Your task to perform on an android device: toggle pop-ups in chrome Image 0: 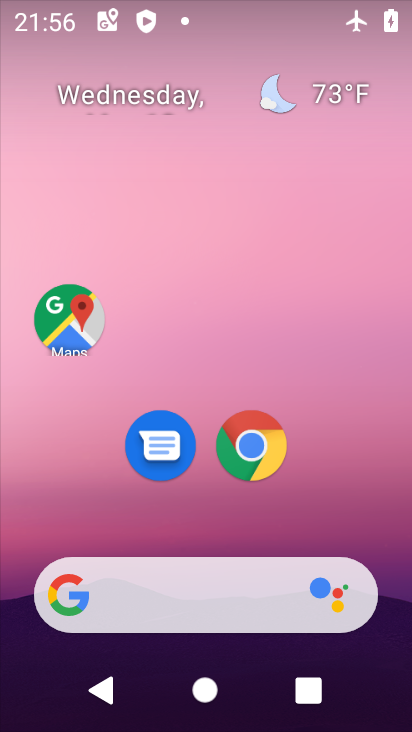
Step 0: drag from (342, 481) to (318, 137)
Your task to perform on an android device: toggle pop-ups in chrome Image 1: 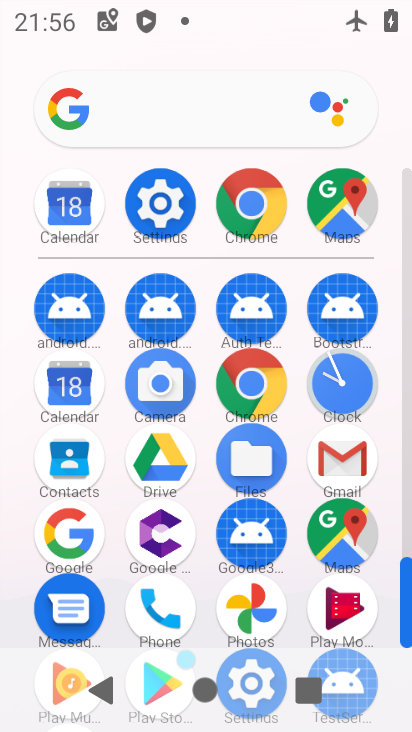
Step 1: click (253, 188)
Your task to perform on an android device: toggle pop-ups in chrome Image 2: 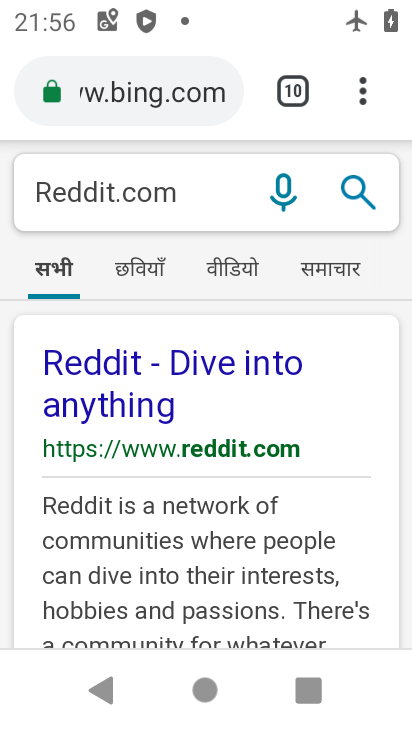
Step 2: click (368, 92)
Your task to perform on an android device: toggle pop-ups in chrome Image 3: 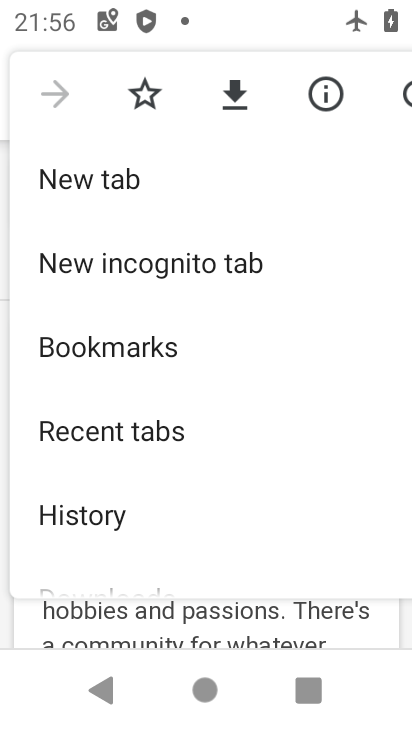
Step 3: drag from (201, 493) to (233, 156)
Your task to perform on an android device: toggle pop-ups in chrome Image 4: 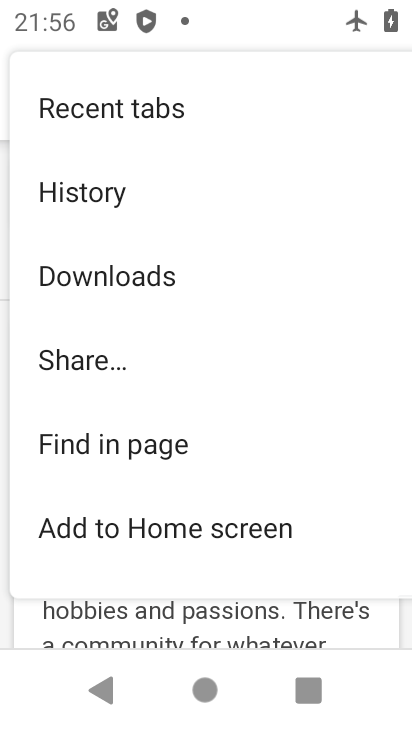
Step 4: drag from (150, 521) to (215, 202)
Your task to perform on an android device: toggle pop-ups in chrome Image 5: 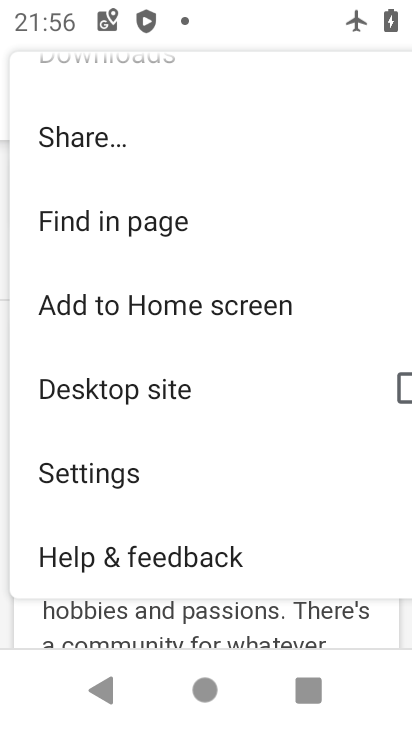
Step 5: click (139, 457)
Your task to perform on an android device: toggle pop-ups in chrome Image 6: 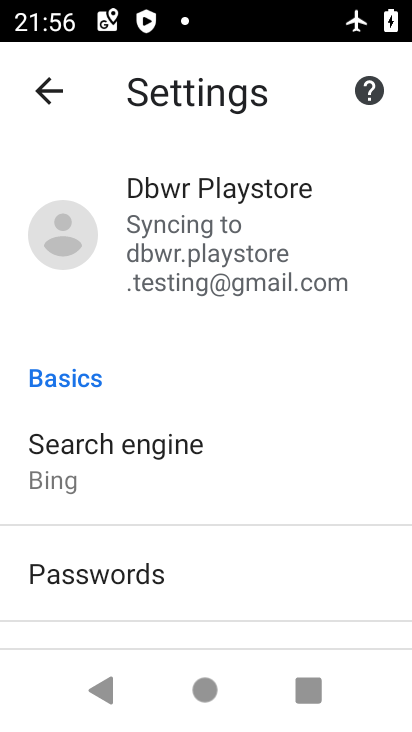
Step 6: drag from (214, 535) to (220, 223)
Your task to perform on an android device: toggle pop-ups in chrome Image 7: 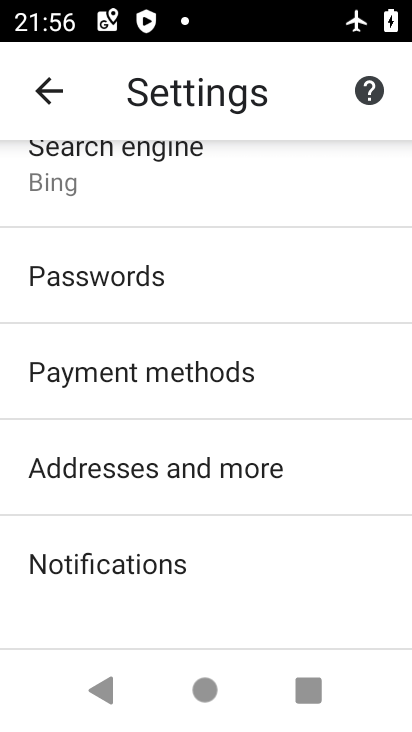
Step 7: drag from (226, 532) to (208, 202)
Your task to perform on an android device: toggle pop-ups in chrome Image 8: 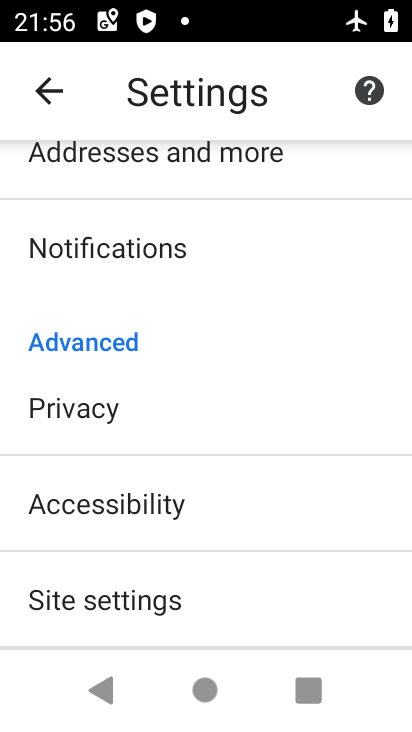
Step 8: drag from (158, 513) to (185, 272)
Your task to perform on an android device: toggle pop-ups in chrome Image 9: 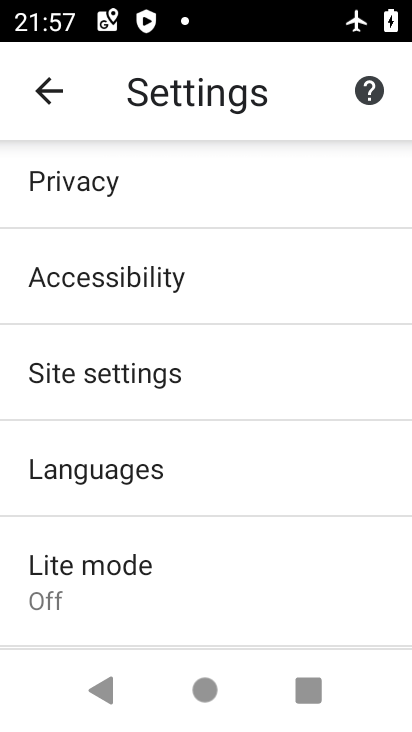
Step 9: click (166, 378)
Your task to perform on an android device: toggle pop-ups in chrome Image 10: 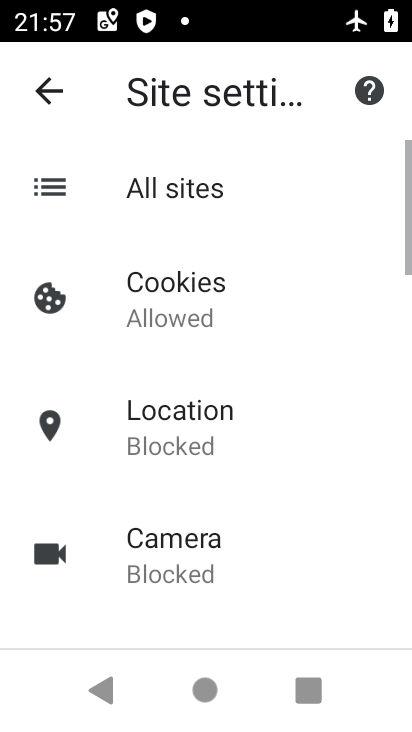
Step 10: drag from (228, 544) to (252, 132)
Your task to perform on an android device: toggle pop-ups in chrome Image 11: 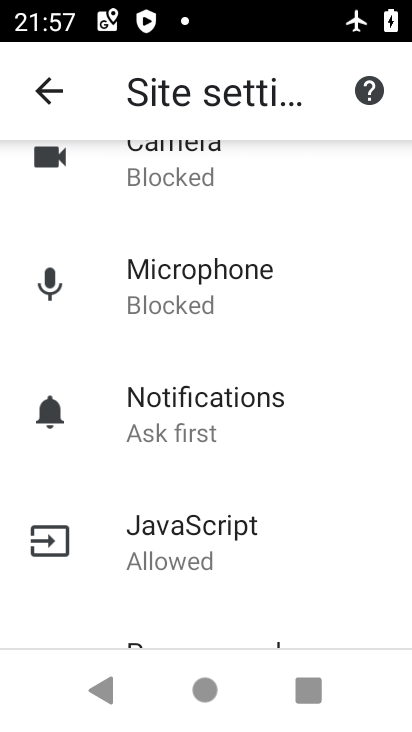
Step 11: drag from (179, 505) to (247, 123)
Your task to perform on an android device: toggle pop-ups in chrome Image 12: 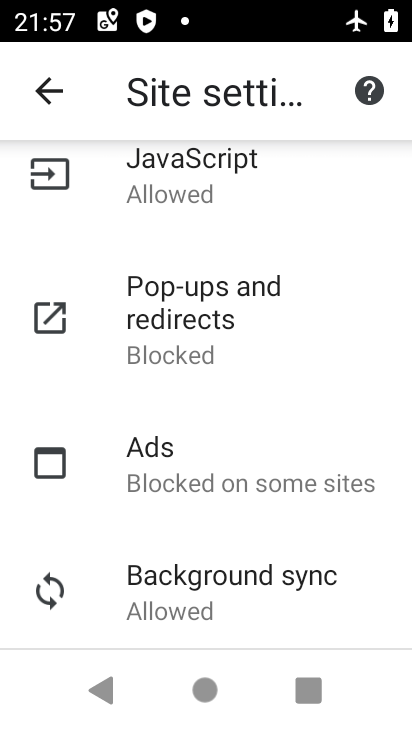
Step 12: click (210, 329)
Your task to perform on an android device: toggle pop-ups in chrome Image 13: 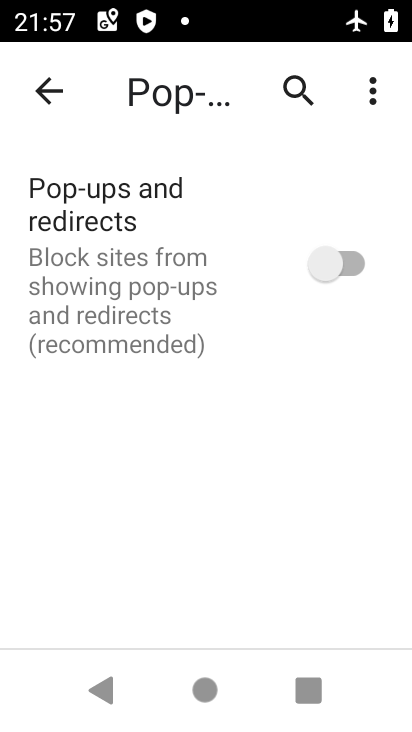
Step 13: click (320, 246)
Your task to perform on an android device: toggle pop-ups in chrome Image 14: 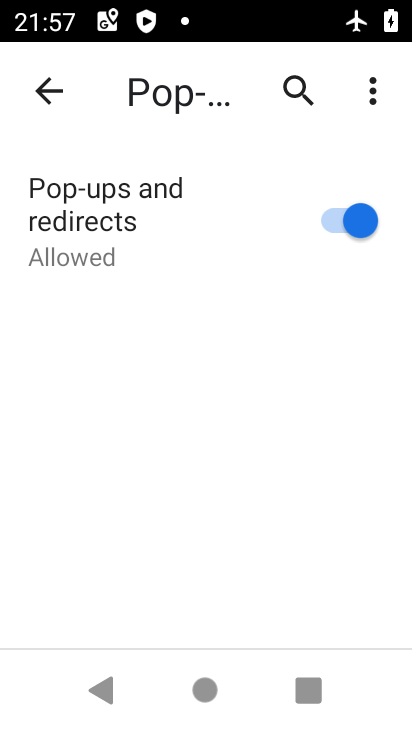
Step 14: task complete